Your task to perform on an android device: empty trash in google photos Image 0: 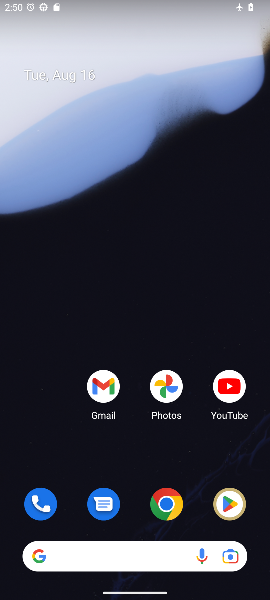
Step 0: click (165, 384)
Your task to perform on an android device: empty trash in google photos Image 1: 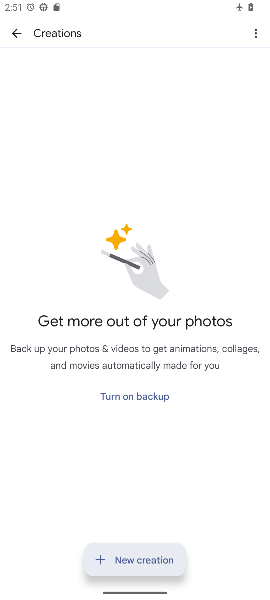
Step 1: click (18, 33)
Your task to perform on an android device: empty trash in google photos Image 2: 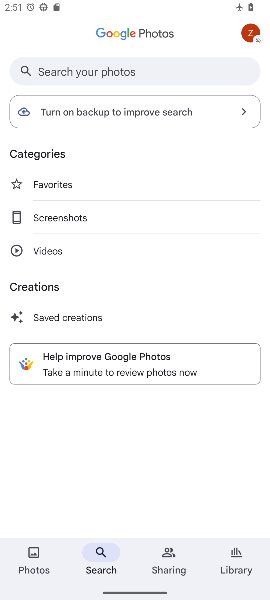
Step 2: click (233, 559)
Your task to perform on an android device: empty trash in google photos Image 3: 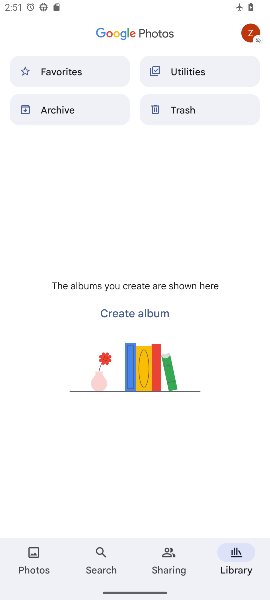
Step 3: click (167, 106)
Your task to perform on an android device: empty trash in google photos Image 4: 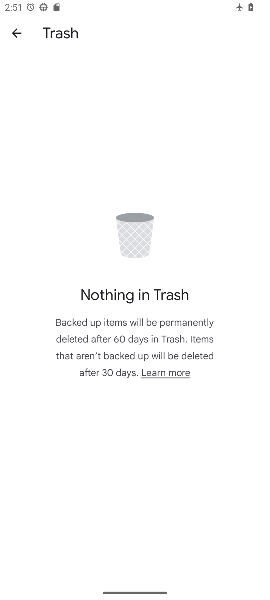
Step 4: task complete